Your task to perform on an android device: turn off location Image 0: 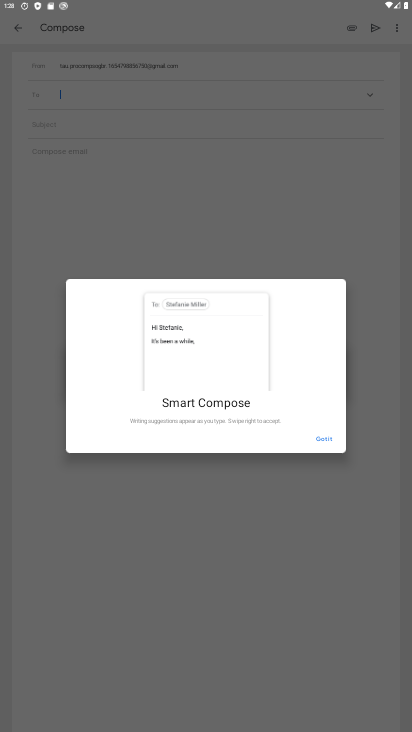
Step 0: press home button
Your task to perform on an android device: turn off location Image 1: 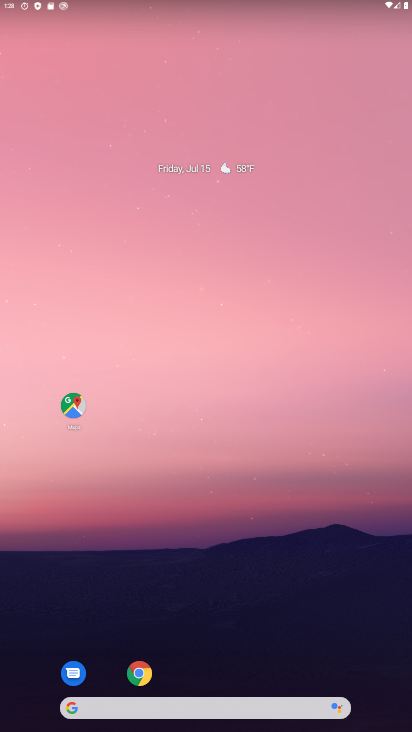
Step 1: drag from (234, 672) to (260, 201)
Your task to perform on an android device: turn off location Image 2: 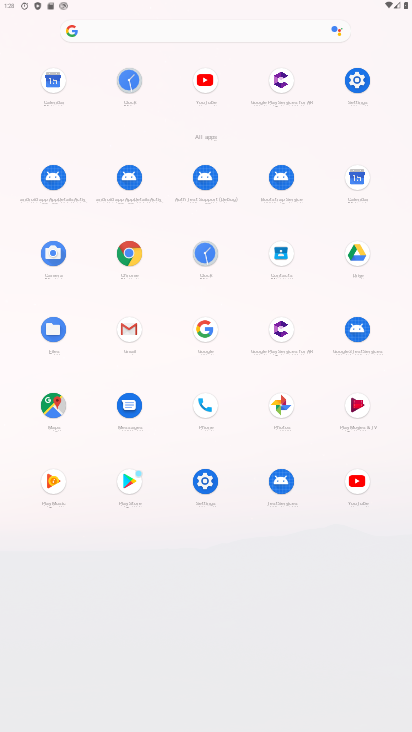
Step 2: click (358, 78)
Your task to perform on an android device: turn off location Image 3: 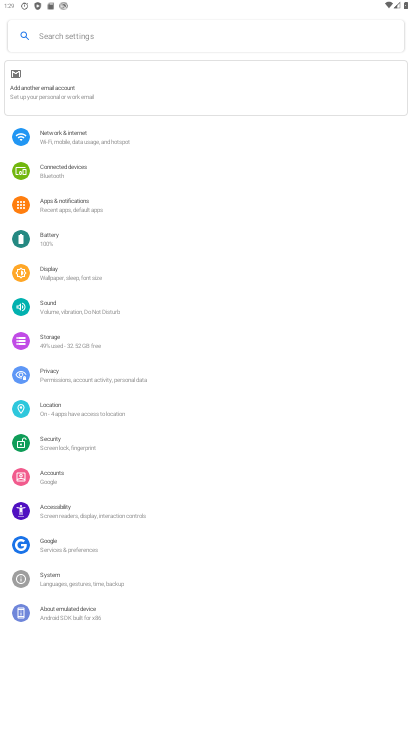
Step 3: click (61, 415)
Your task to perform on an android device: turn off location Image 4: 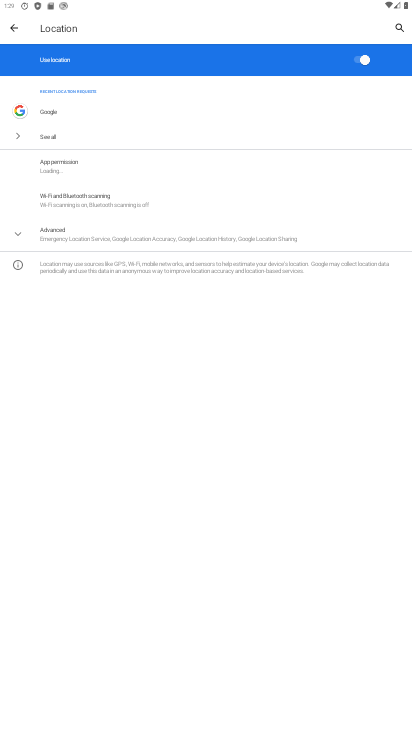
Step 4: click (358, 55)
Your task to perform on an android device: turn off location Image 5: 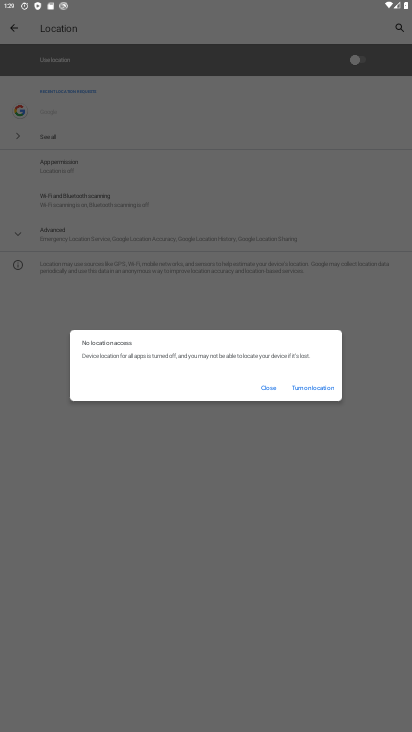
Step 5: task complete